Your task to perform on an android device: Open calendar and show me the second week of next month Image 0: 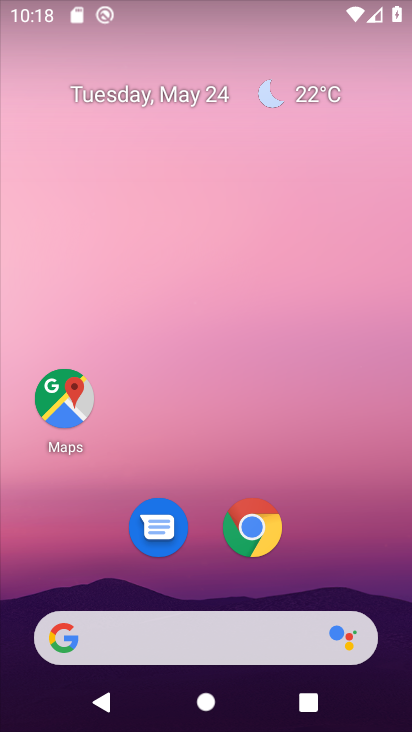
Step 0: press home button
Your task to perform on an android device: Open calendar and show me the second week of next month Image 1: 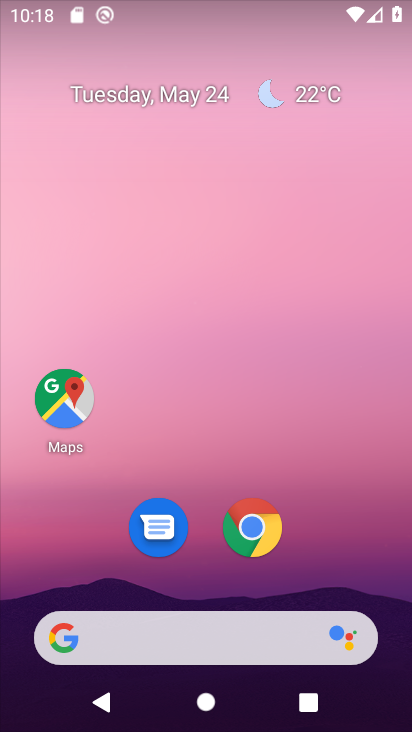
Step 1: drag from (239, 347) to (312, 73)
Your task to perform on an android device: Open calendar and show me the second week of next month Image 2: 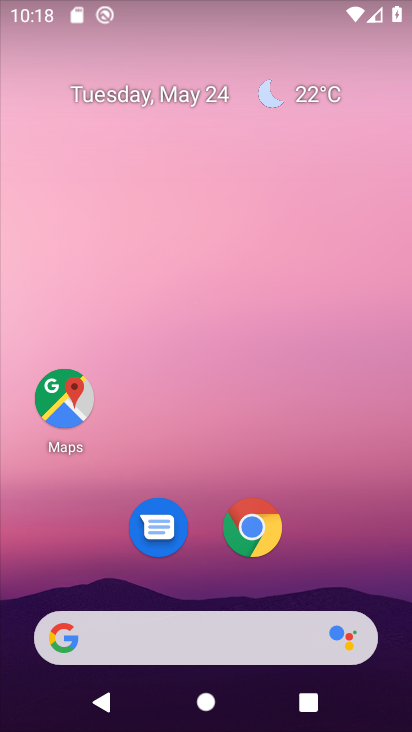
Step 2: drag from (196, 635) to (312, 156)
Your task to perform on an android device: Open calendar and show me the second week of next month Image 3: 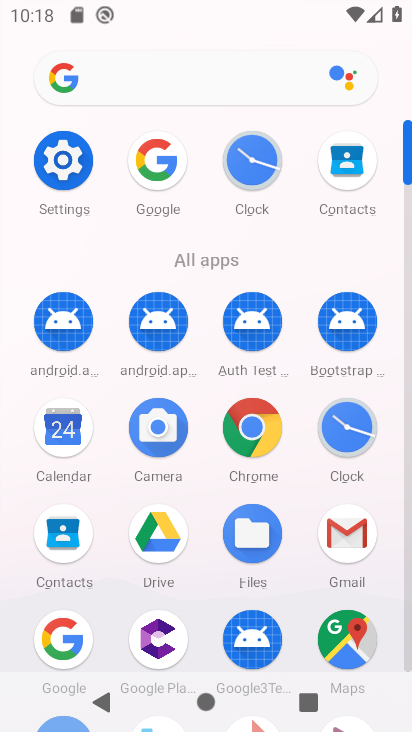
Step 3: click (63, 440)
Your task to perform on an android device: Open calendar and show me the second week of next month Image 4: 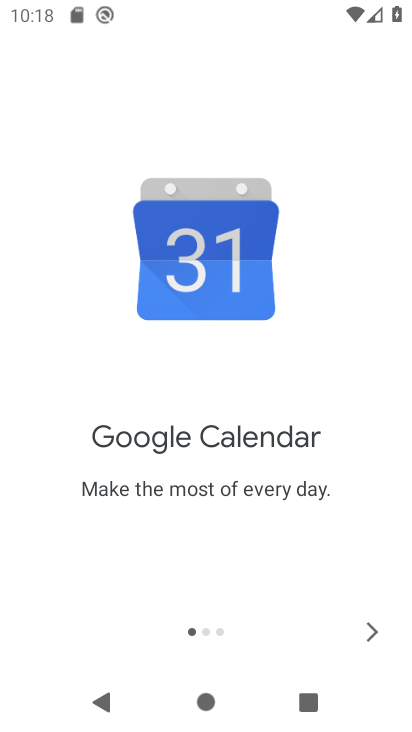
Step 4: click (370, 622)
Your task to perform on an android device: Open calendar and show me the second week of next month Image 5: 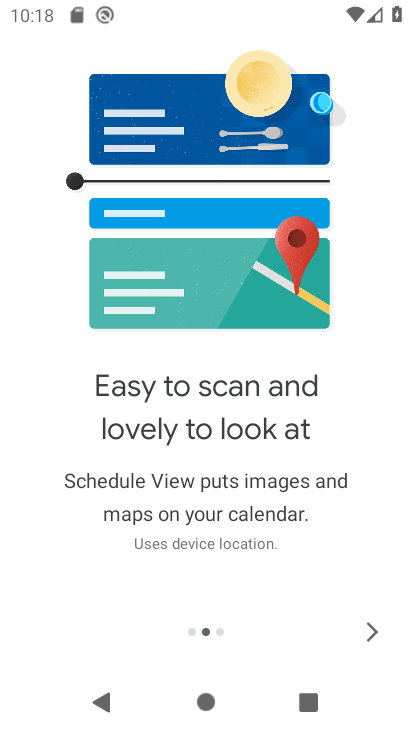
Step 5: click (370, 622)
Your task to perform on an android device: Open calendar and show me the second week of next month Image 6: 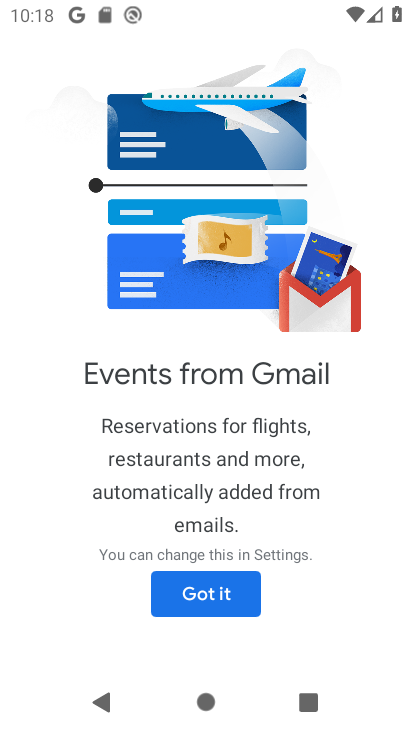
Step 6: click (216, 592)
Your task to perform on an android device: Open calendar and show me the second week of next month Image 7: 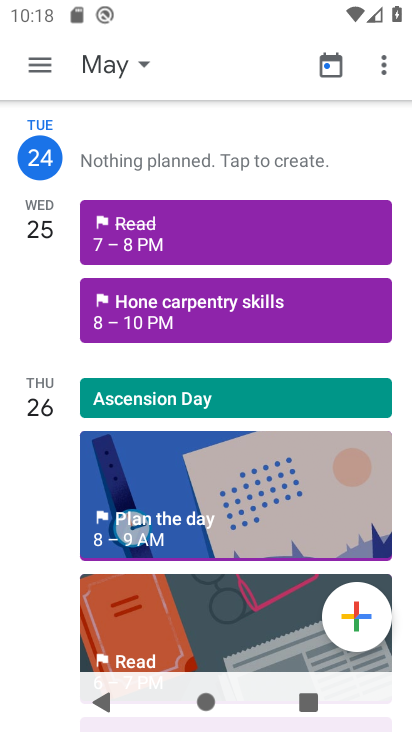
Step 7: click (109, 66)
Your task to perform on an android device: Open calendar and show me the second week of next month Image 8: 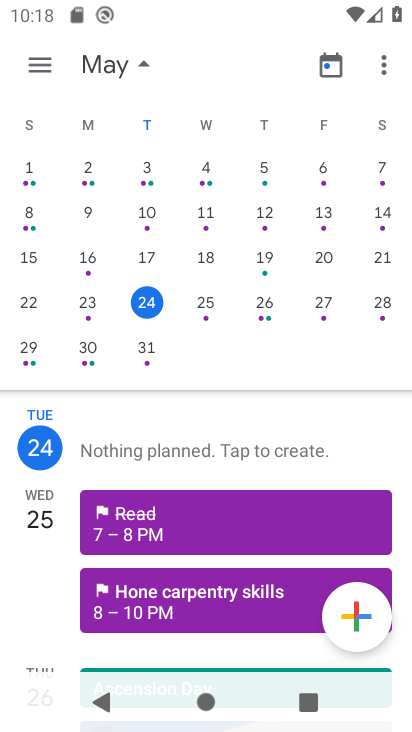
Step 8: drag from (373, 286) to (46, 280)
Your task to perform on an android device: Open calendar and show me the second week of next month Image 9: 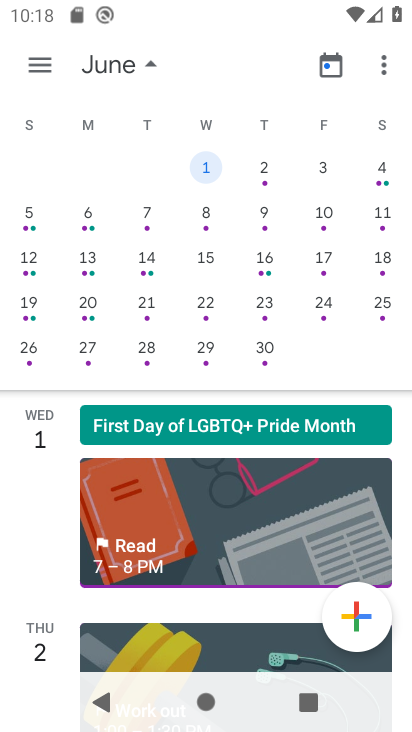
Step 9: click (29, 213)
Your task to perform on an android device: Open calendar and show me the second week of next month Image 10: 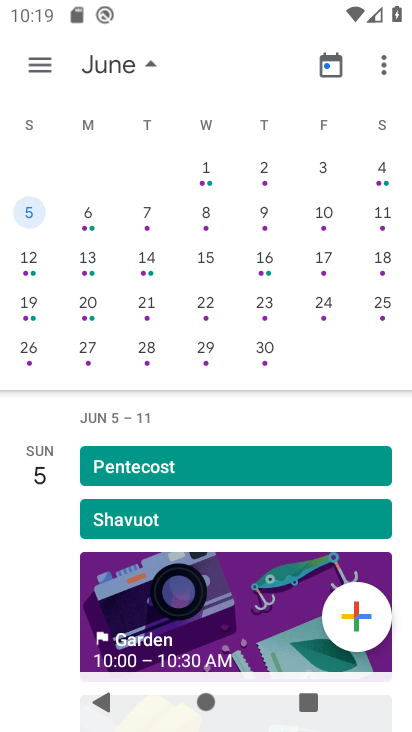
Step 10: click (44, 65)
Your task to perform on an android device: Open calendar and show me the second week of next month Image 11: 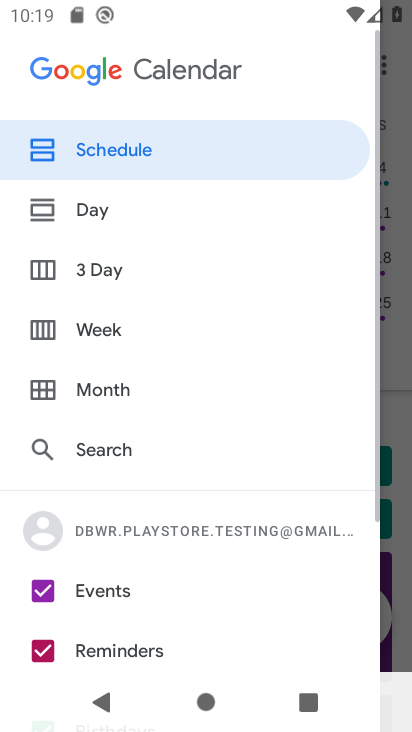
Step 11: click (109, 328)
Your task to perform on an android device: Open calendar and show me the second week of next month Image 12: 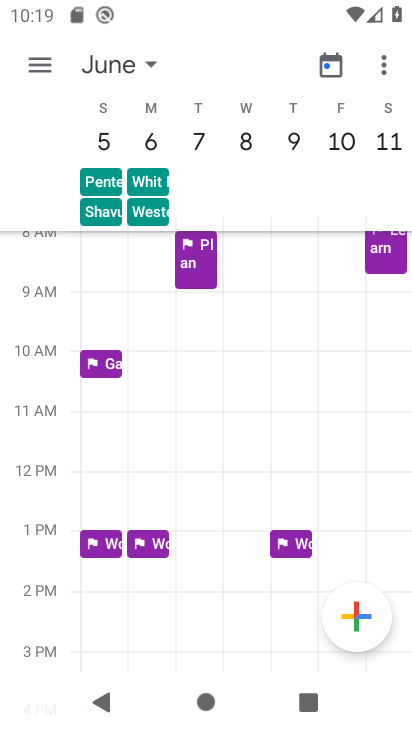
Step 12: task complete